Your task to perform on an android device: open device folders in google photos Image 0: 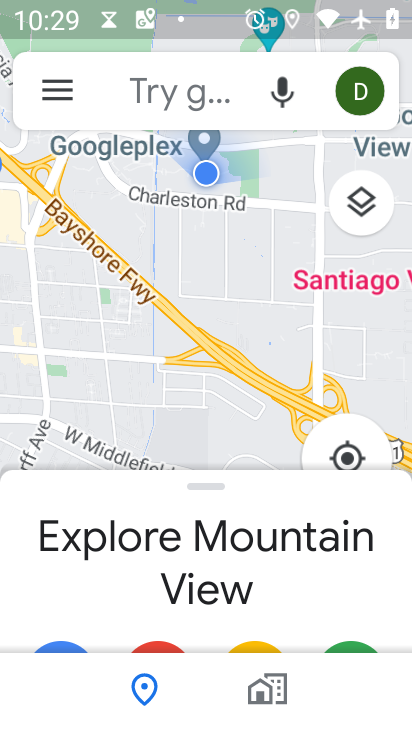
Step 0: press home button
Your task to perform on an android device: open device folders in google photos Image 1: 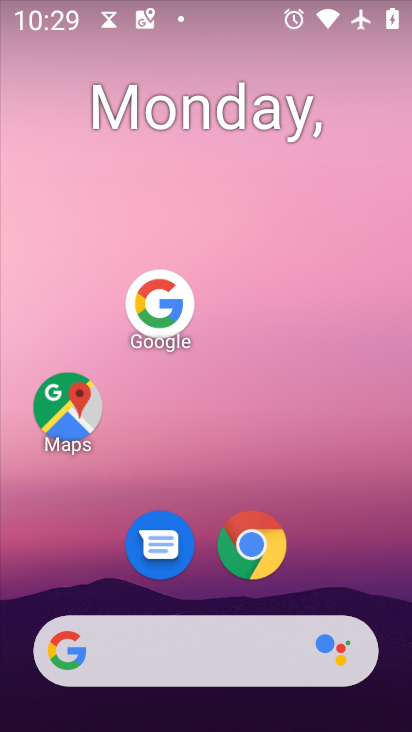
Step 1: drag from (166, 660) to (312, 152)
Your task to perform on an android device: open device folders in google photos Image 2: 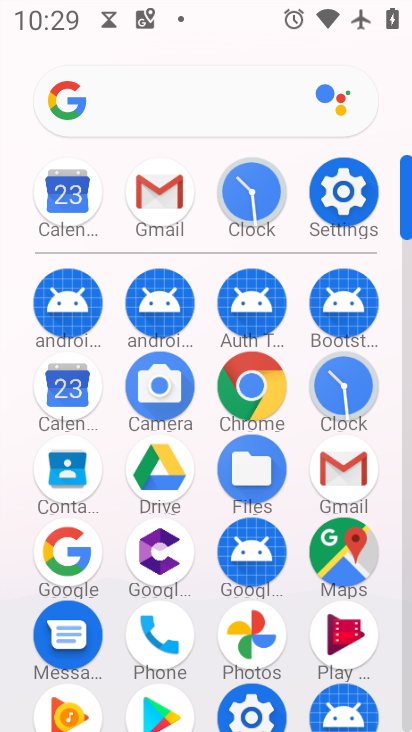
Step 2: click (265, 636)
Your task to perform on an android device: open device folders in google photos Image 3: 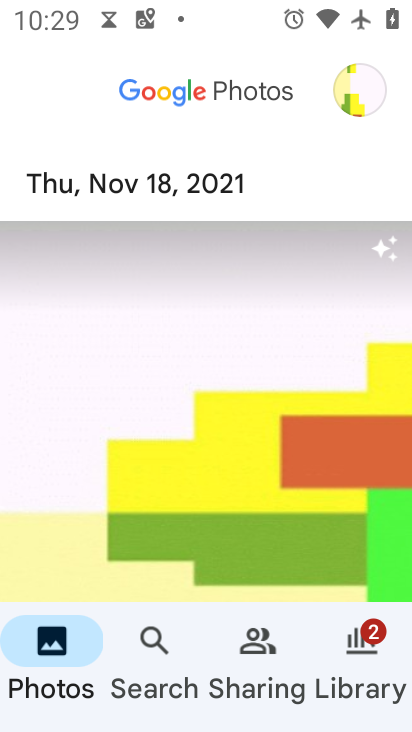
Step 3: click (340, 689)
Your task to perform on an android device: open device folders in google photos Image 4: 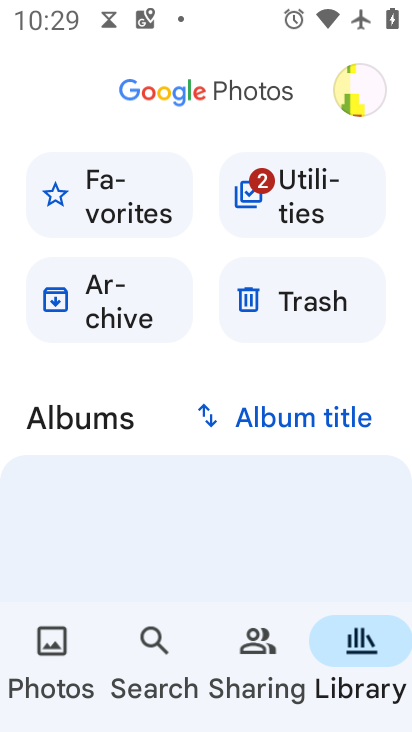
Step 4: task complete